Your task to perform on an android device: Show the shopping cart on bestbuy.com. Add "amazon basics triple a" to the cart on bestbuy.com, then select checkout. Image 0: 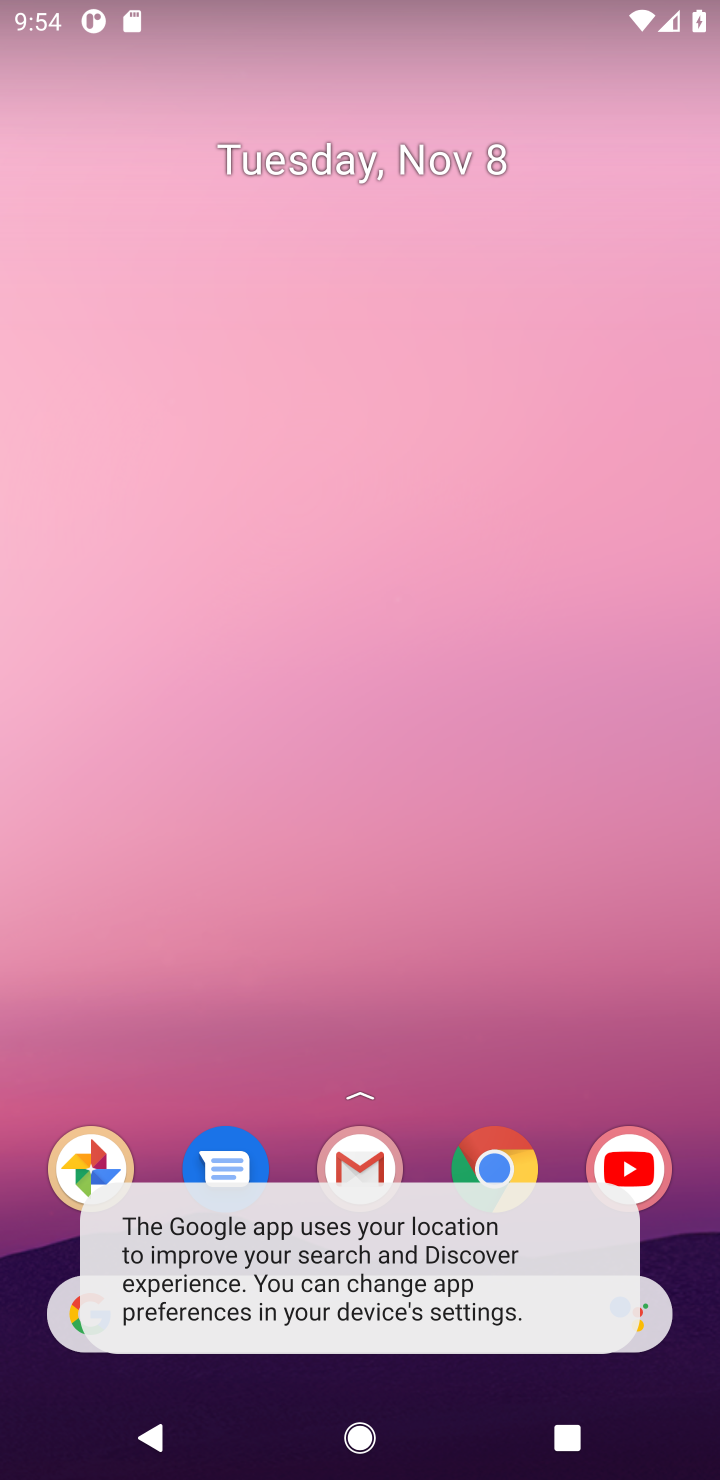
Step 0: click (512, 1179)
Your task to perform on an android device: Show the shopping cart on bestbuy.com. Add "amazon basics triple a" to the cart on bestbuy.com, then select checkout. Image 1: 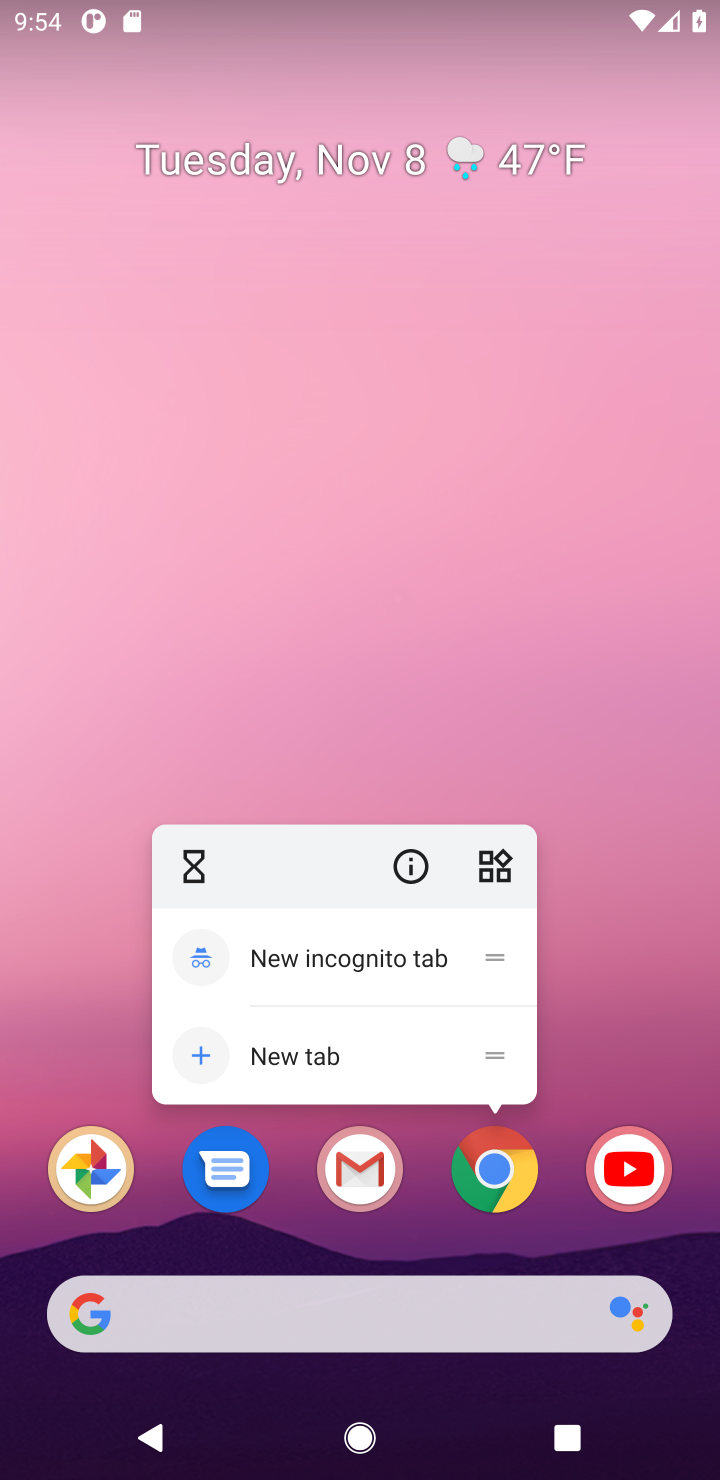
Step 1: click (511, 1135)
Your task to perform on an android device: Show the shopping cart on bestbuy.com. Add "amazon basics triple a" to the cart on bestbuy.com, then select checkout. Image 2: 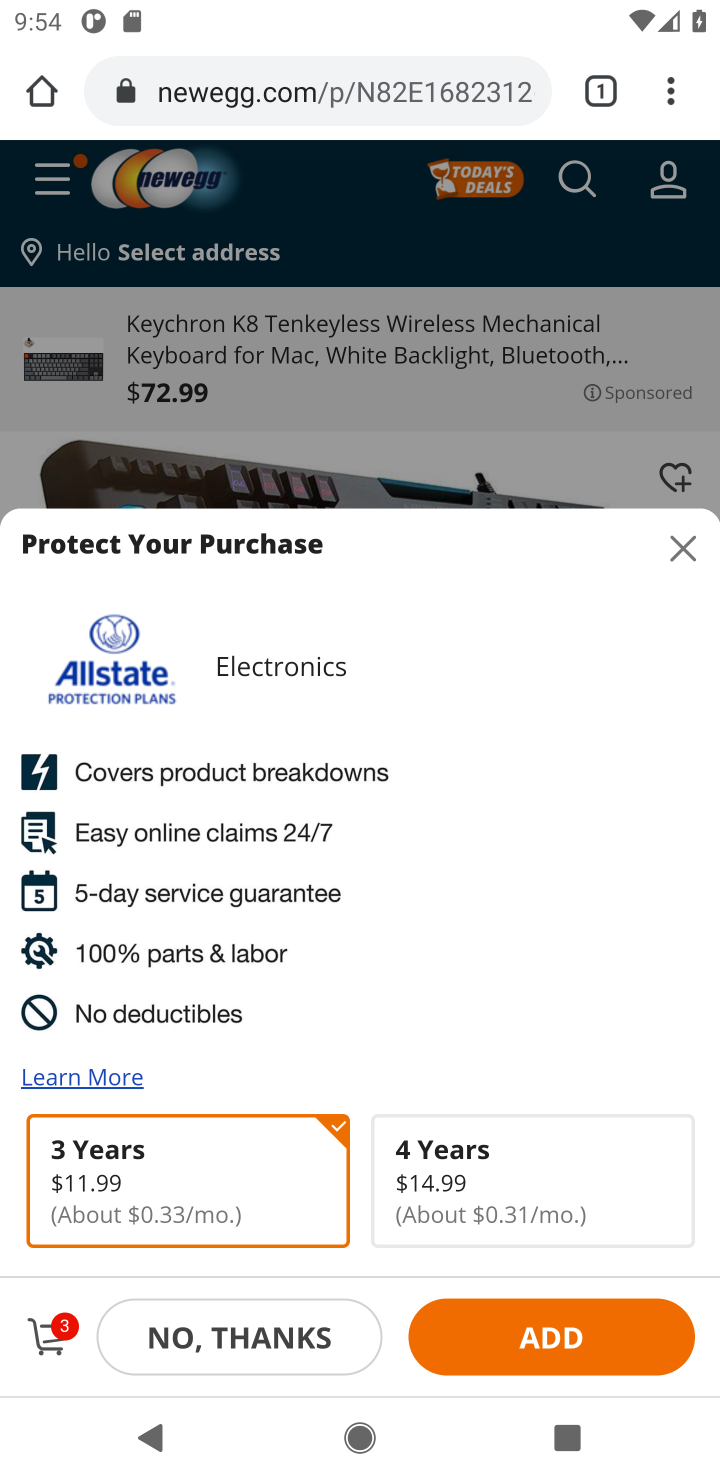
Step 2: click (693, 553)
Your task to perform on an android device: Show the shopping cart on bestbuy.com. Add "amazon basics triple a" to the cart on bestbuy.com, then select checkout. Image 3: 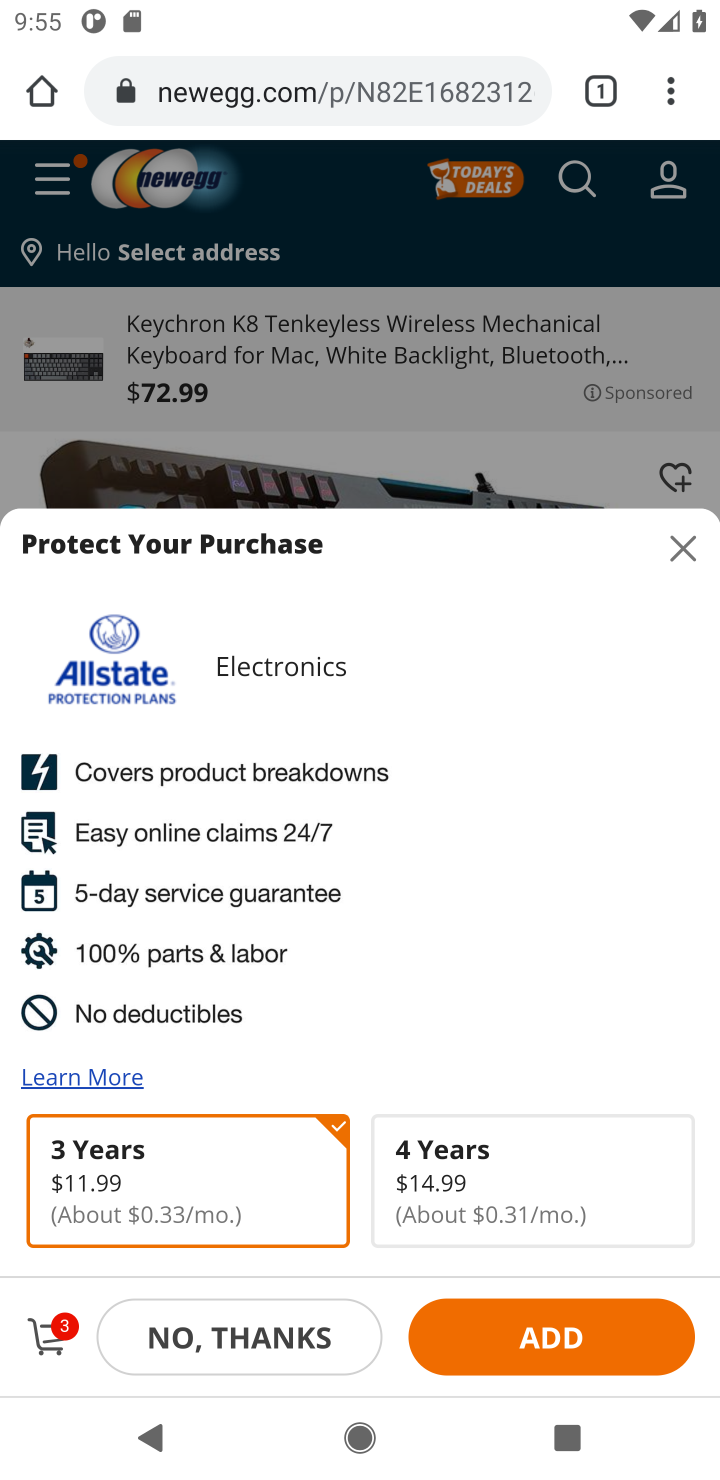
Step 3: click (290, 88)
Your task to perform on an android device: Show the shopping cart on bestbuy.com. Add "amazon basics triple a" to the cart on bestbuy.com, then select checkout. Image 4: 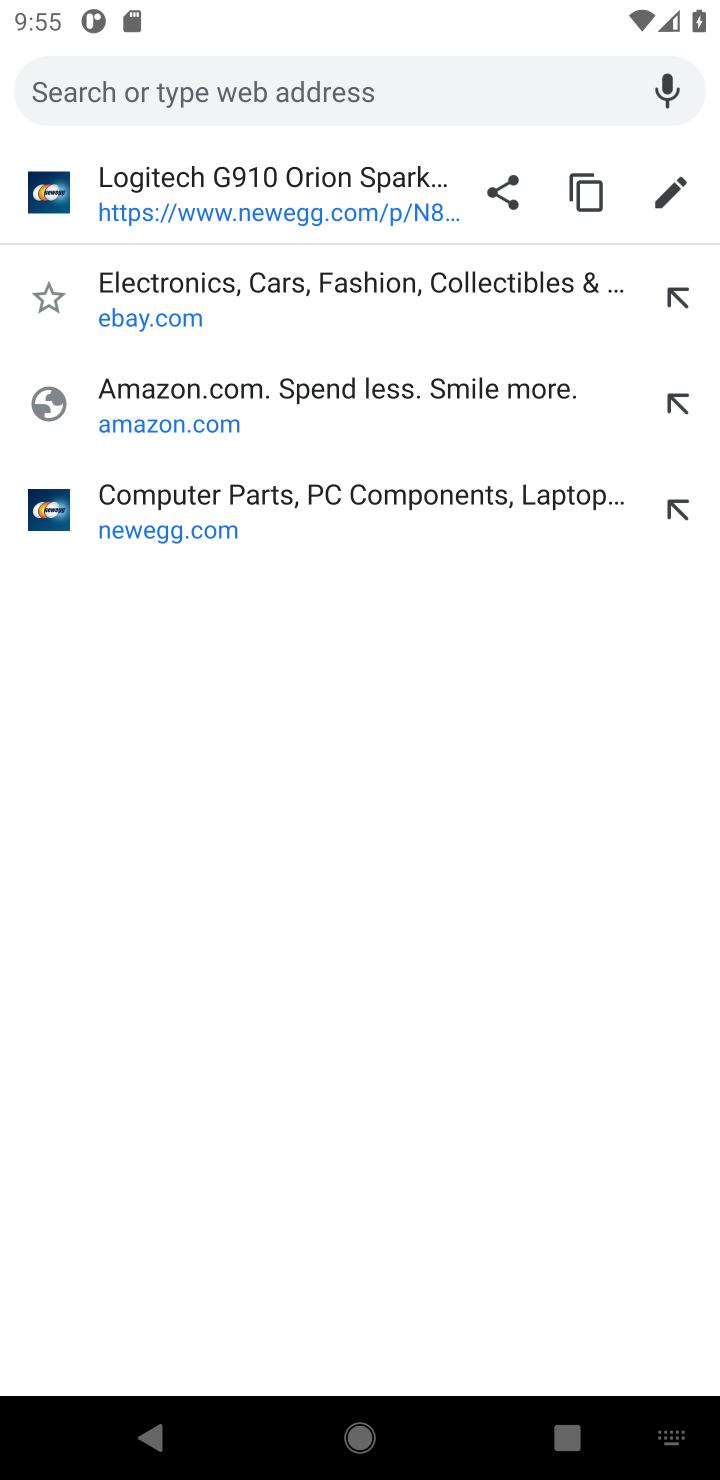
Step 4: type "bestbuy.com"
Your task to perform on an android device: Show the shopping cart on bestbuy.com. Add "amazon basics triple a" to the cart on bestbuy.com, then select checkout. Image 5: 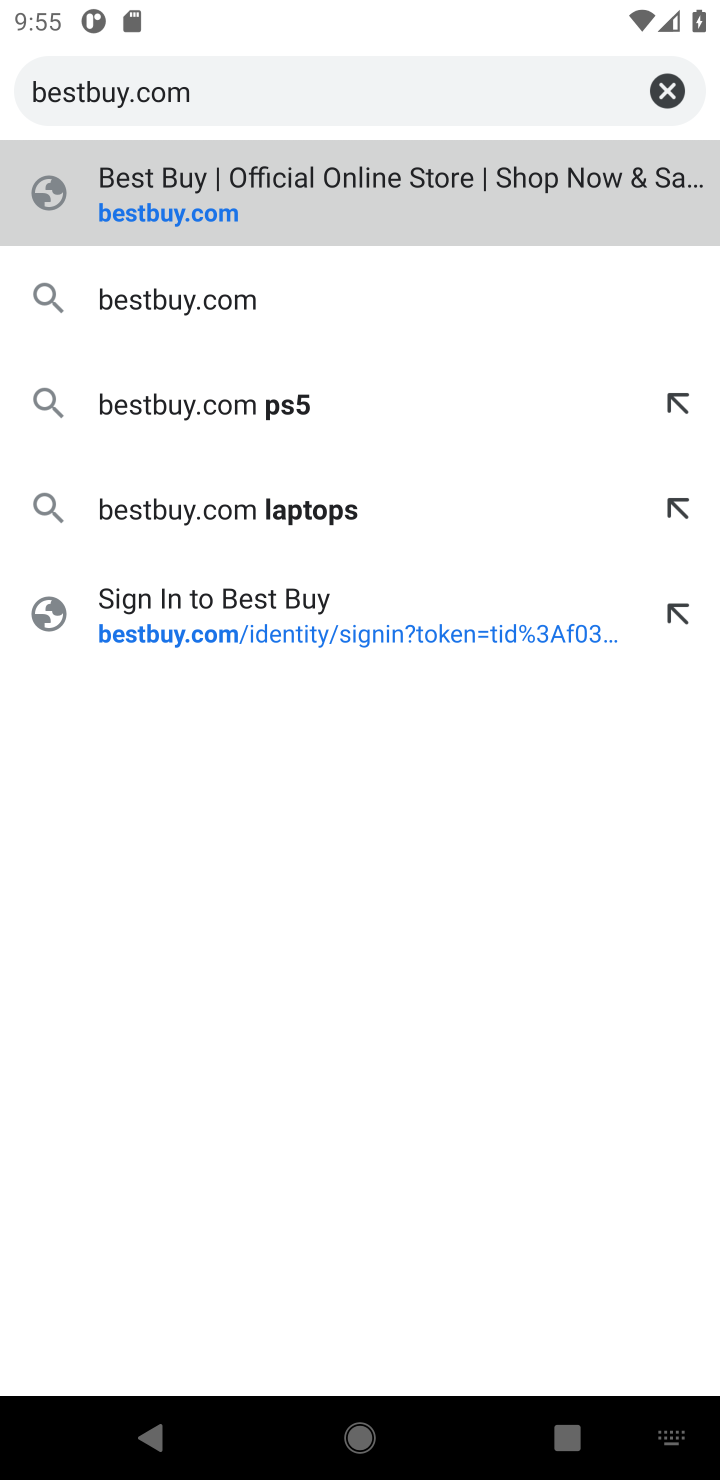
Step 5: click (240, 281)
Your task to perform on an android device: Show the shopping cart on bestbuy.com. Add "amazon basics triple a" to the cart on bestbuy.com, then select checkout. Image 6: 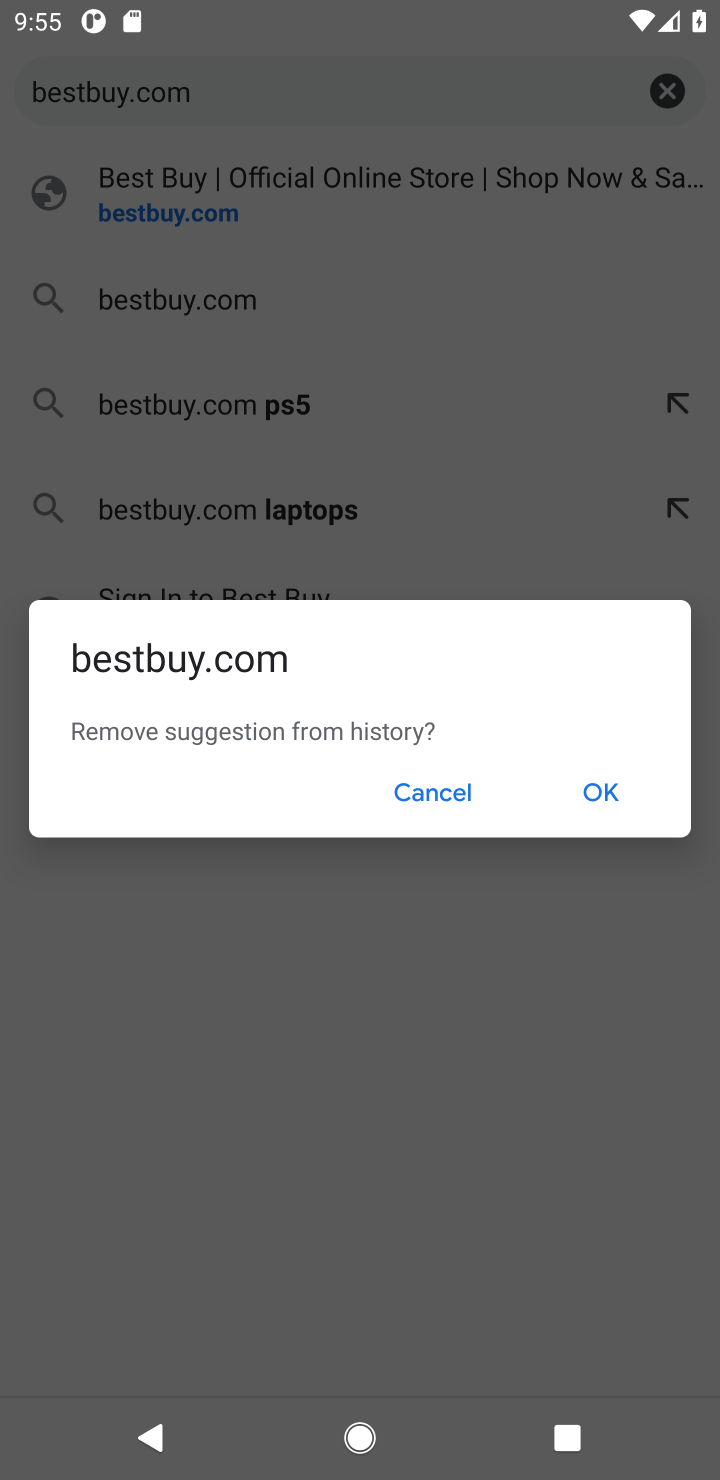
Step 6: click (610, 795)
Your task to perform on an android device: Show the shopping cart on bestbuy.com. Add "amazon basics triple a" to the cart on bestbuy.com, then select checkout. Image 7: 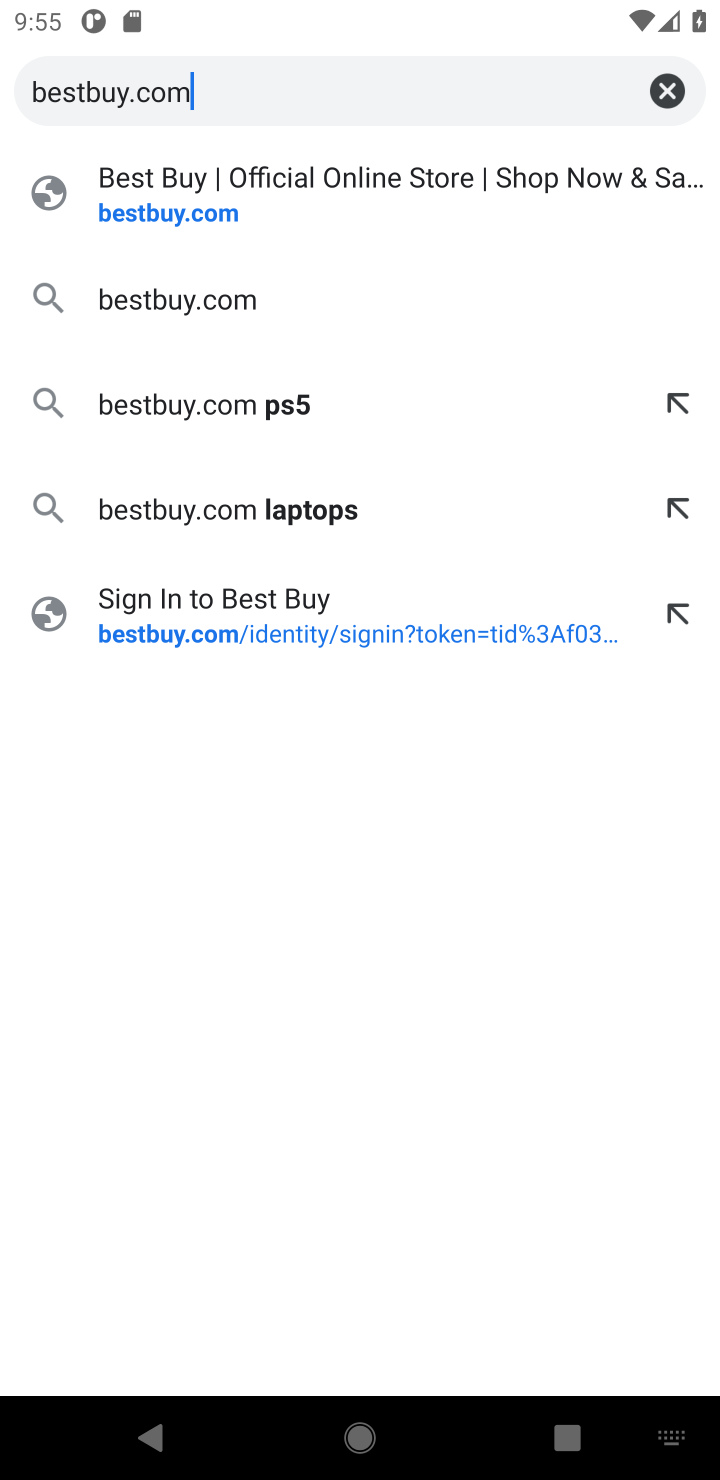
Step 7: click (389, 85)
Your task to perform on an android device: Show the shopping cart on bestbuy.com. Add "amazon basics triple a" to the cart on bestbuy.com, then select checkout. Image 8: 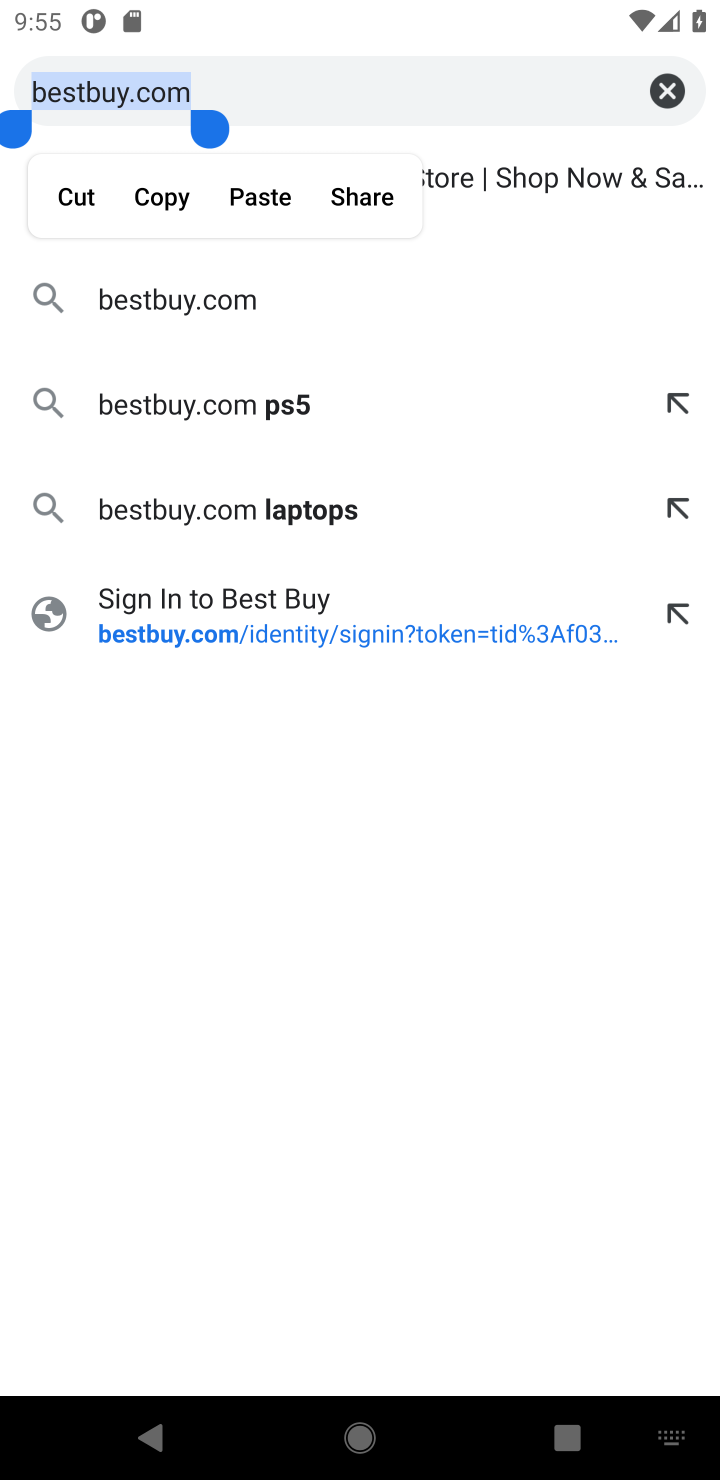
Step 8: click (160, 278)
Your task to perform on an android device: Show the shopping cart on bestbuy.com. Add "amazon basics triple a" to the cart on bestbuy.com, then select checkout. Image 9: 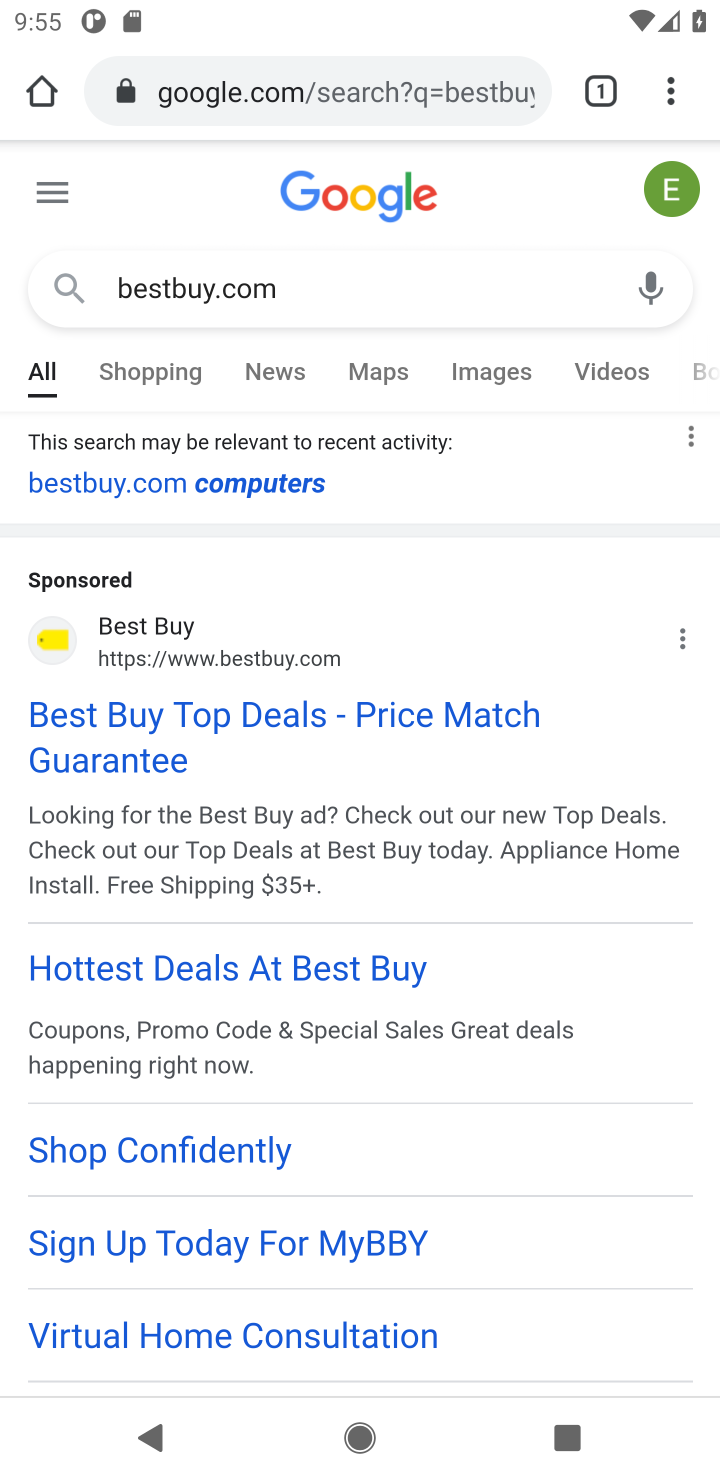
Step 9: click (320, 650)
Your task to perform on an android device: Show the shopping cart on bestbuy.com. Add "amazon basics triple a" to the cart on bestbuy.com, then select checkout. Image 10: 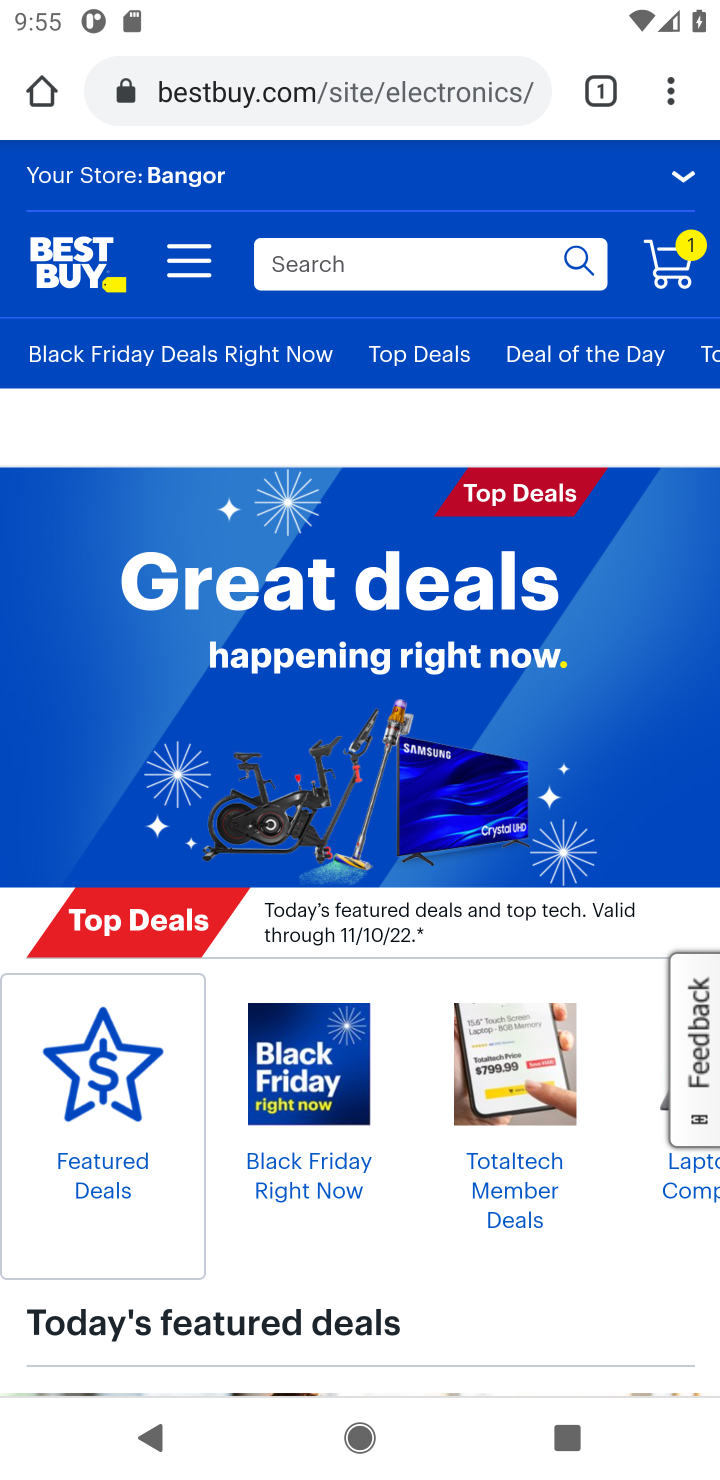
Step 10: click (685, 266)
Your task to perform on an android device: Show the shopping cart on bestbuy.com. Add "amazon basics triple a" to the cart on bestbuy.com, then select checkout. Image 11: 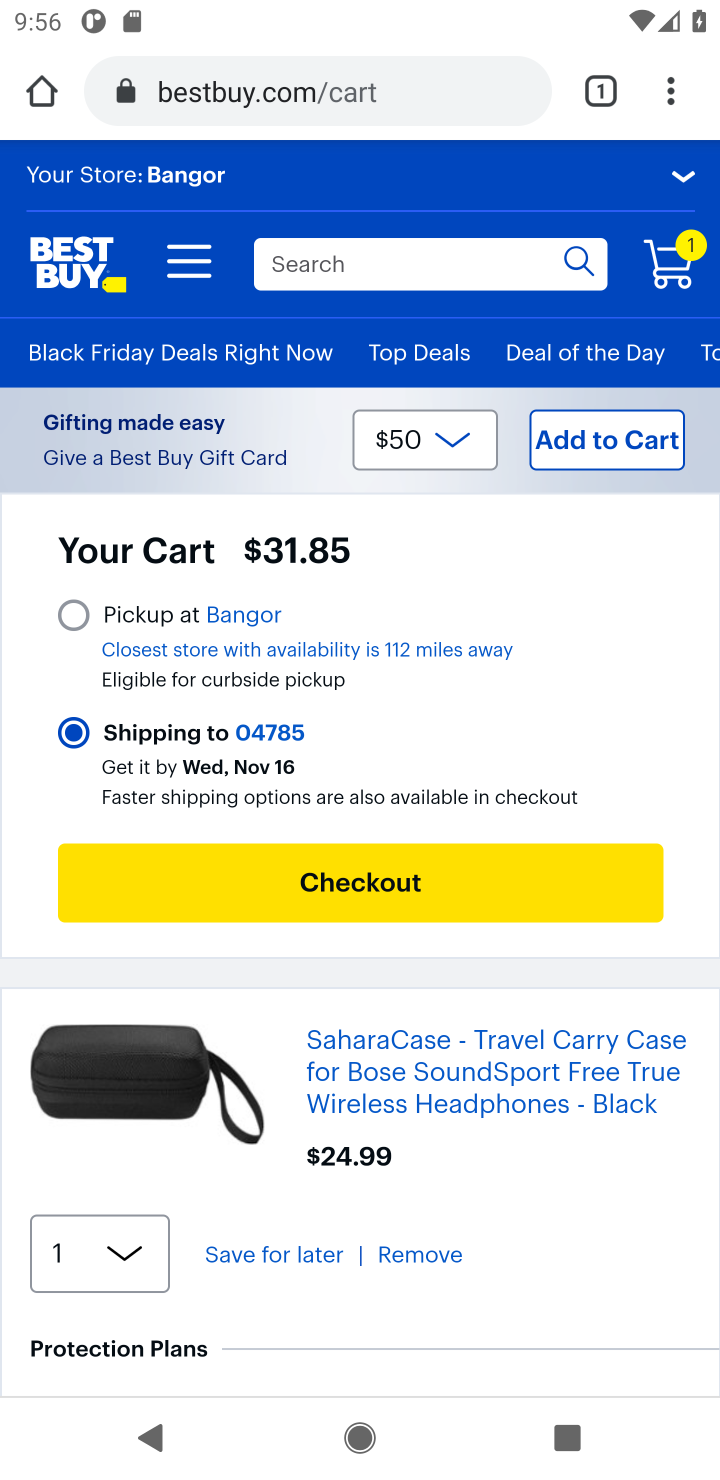
Step 11: click (391, 274)
Your task to perform on an android device: Show the shopping cart on bestbuy.com. Add "amazon basics triple a" to the cart on bestbuy.com, then select checkout. Image 12: 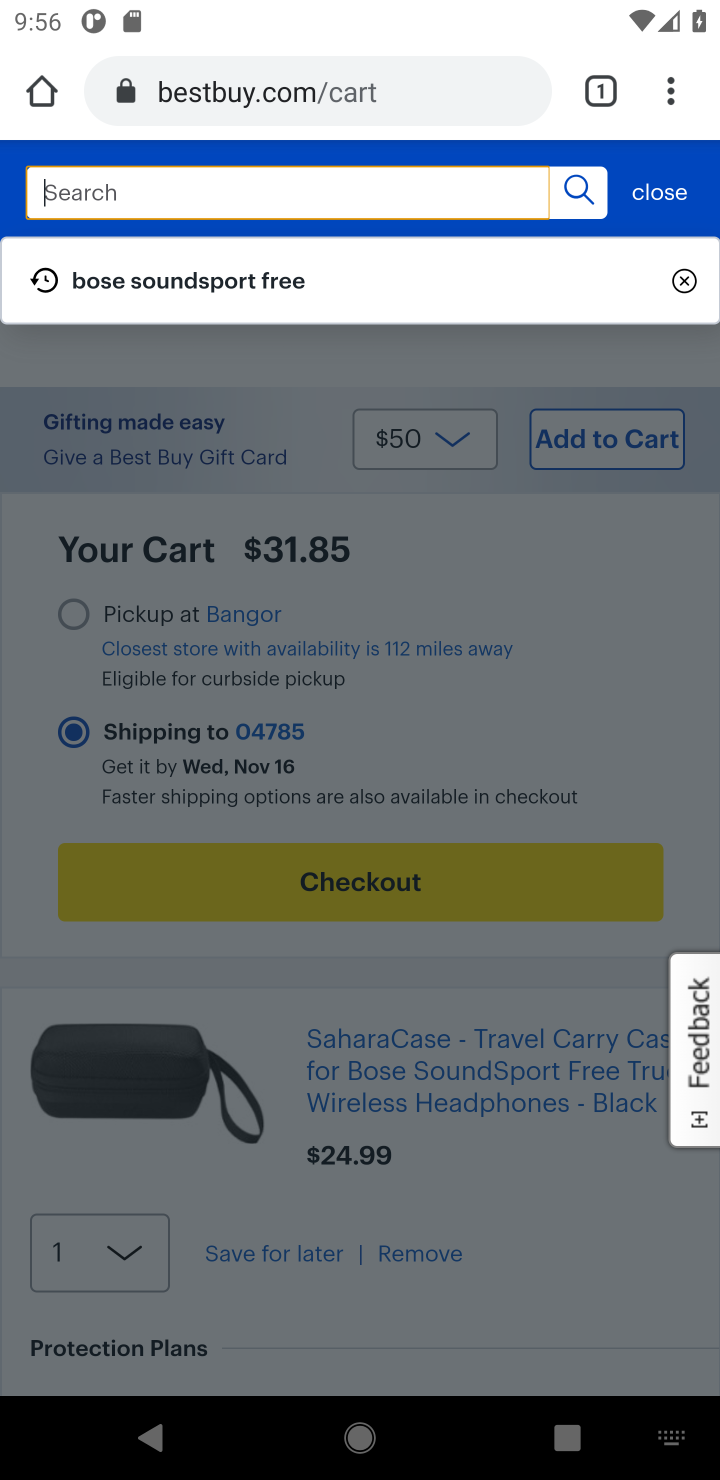
Step 12: type "amazon basics triple a"
Your task to perform on an android device: Show the shopping cart on bestbuy.com. Add "amazon basics triple a" to the cart on bestbuy.com, then select checkout. Image 13: 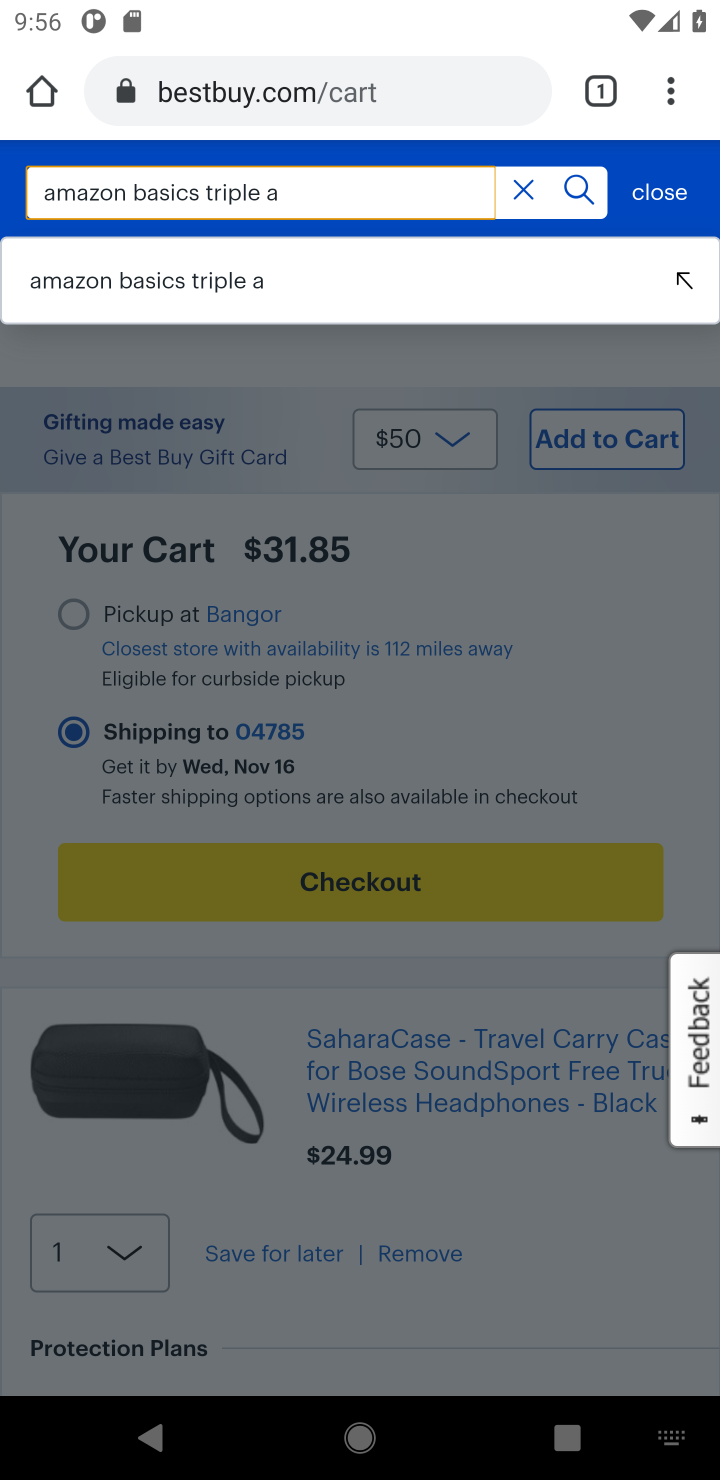
Step 13: click (155, 268)
Your task to perform on an android device: Show the shopping cart on bestbuy.com. Add "amazon basics triple a" to the cart on bestbuy.com, then select checkout. Image 14: 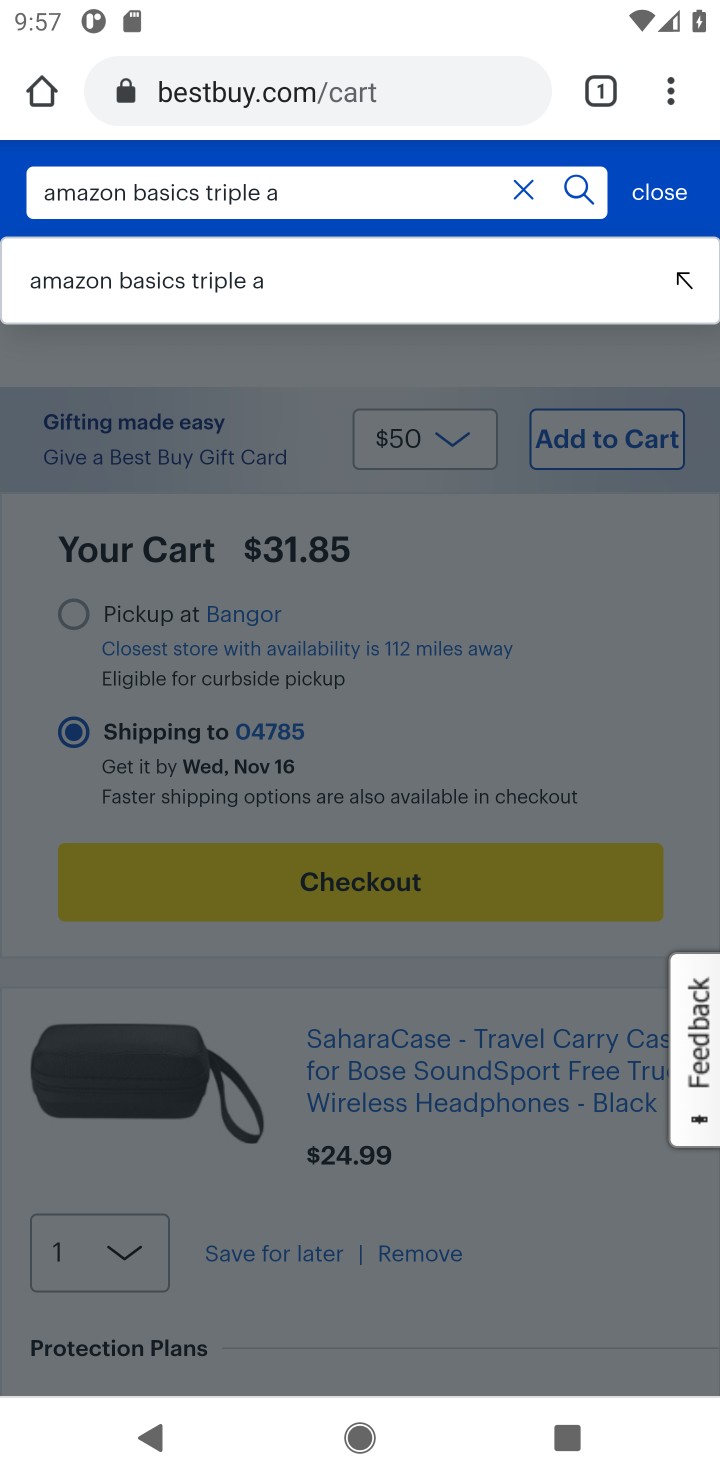
Step 14: click (179, 277)
Your task to perform on an android device: Show the shopping cart on bestbuy.com. Add "amazon basics triple a" to the cart on bestbuy.com, then select checkout. Image 15: 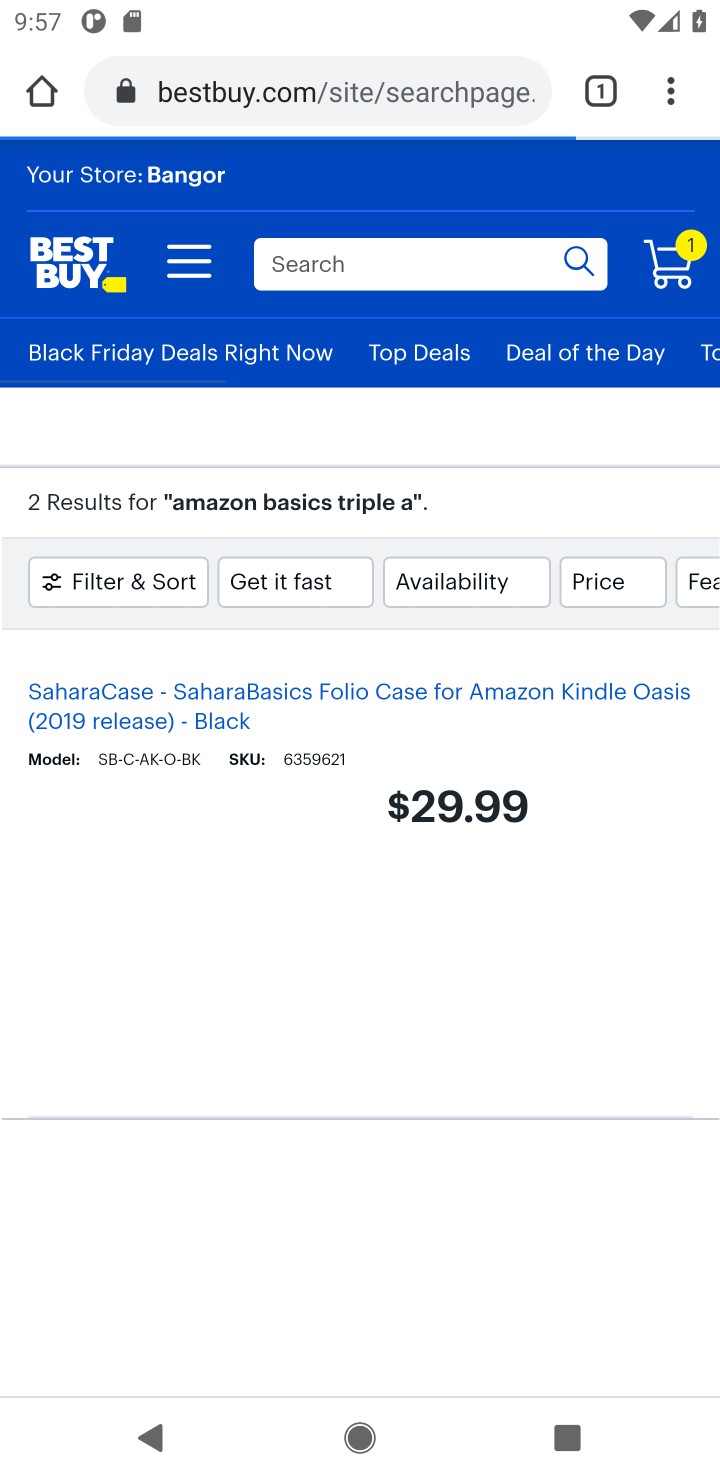
Step 15: task complete